Your task to perform on an android device: uninstall "Google Drive" Image 0: 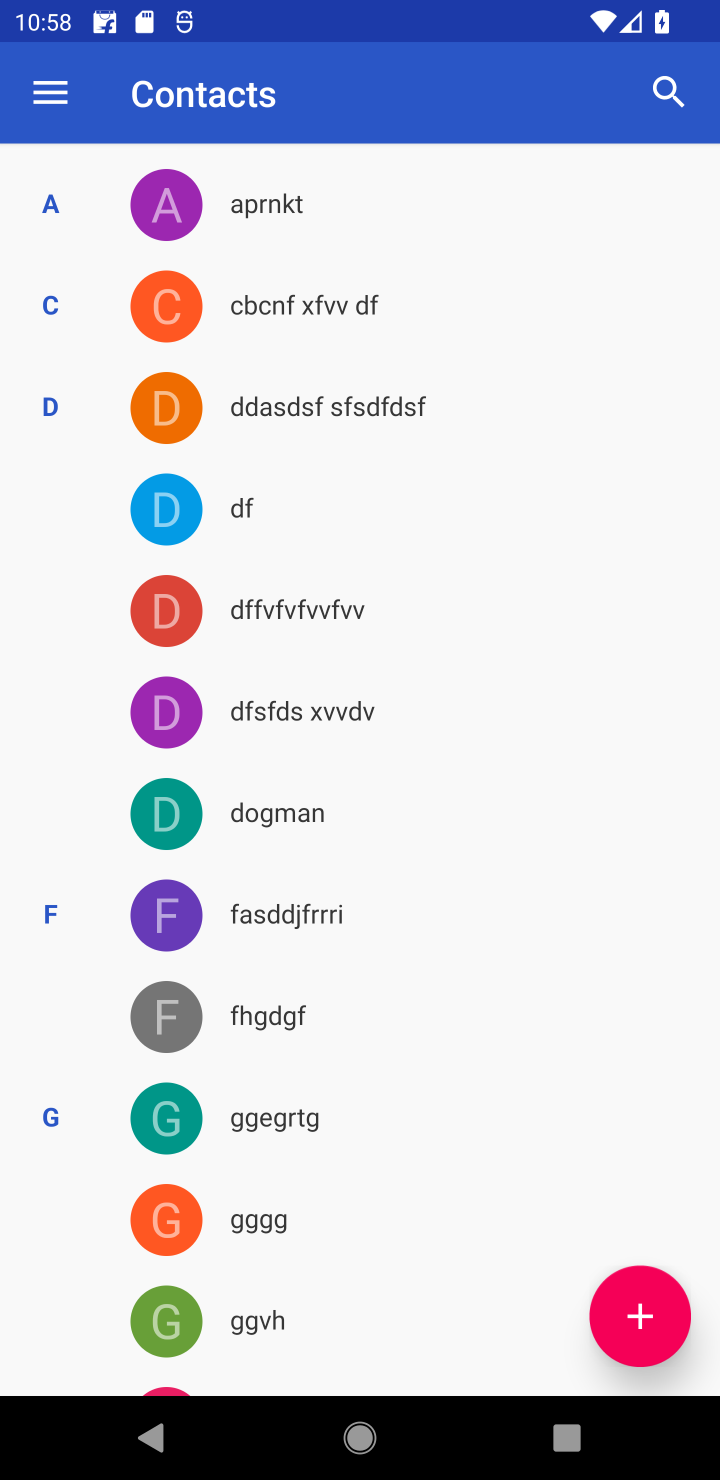
Step 0: press home button
Your task to perform on an android device: uninstall "Google Drive" Image 1: 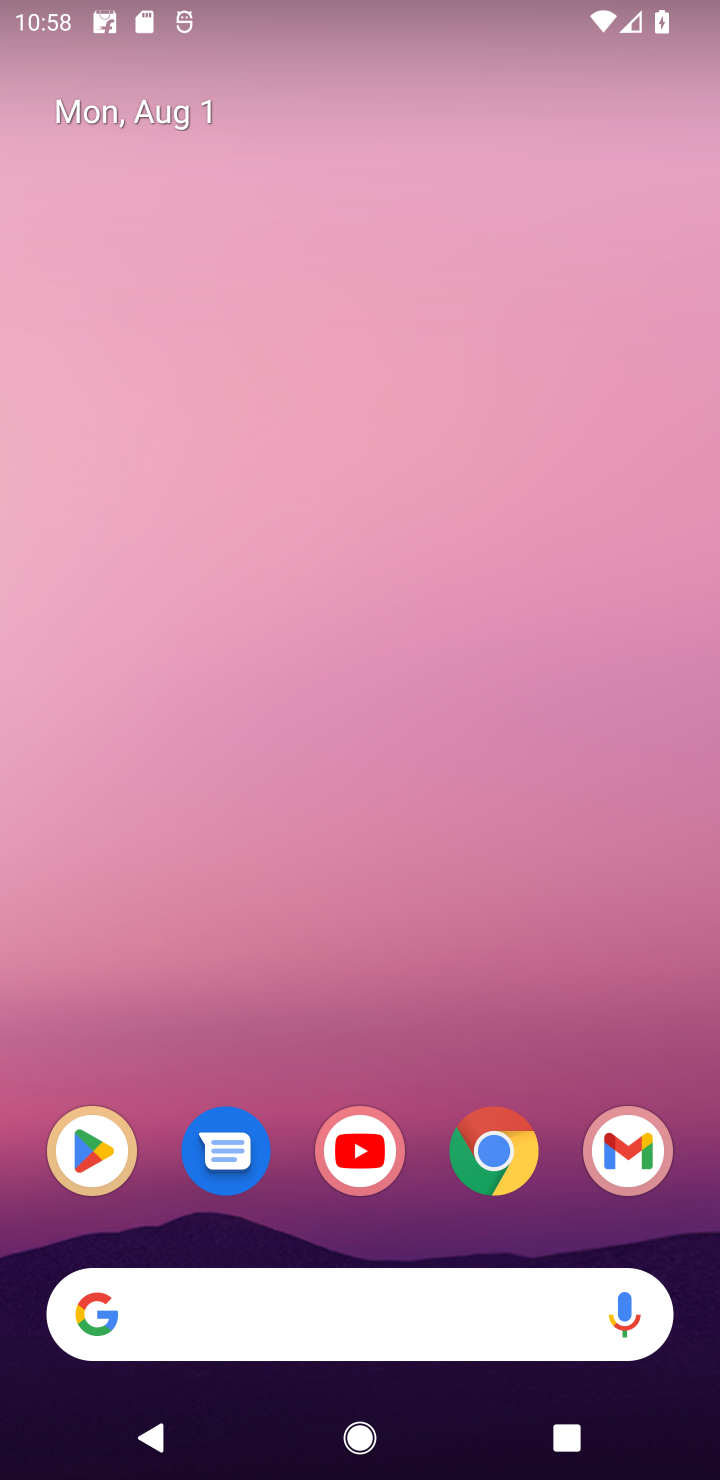
Step 1: click (117, 1133)
Your task to perform on an android device: uninstall "Google Drive" Image 2: 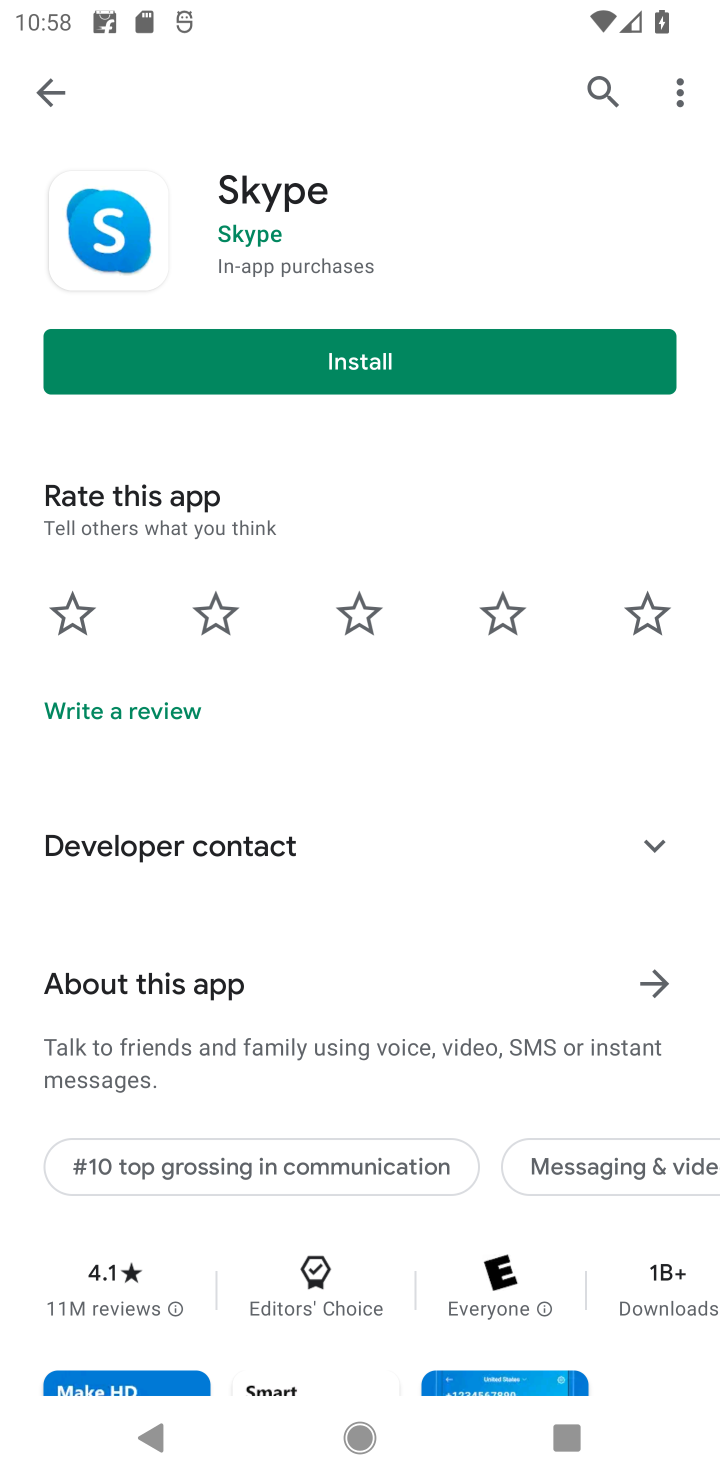
Step 2: click (603, 95)
Your task to perform on an android device: uninstall "Google Drive" Image 3: 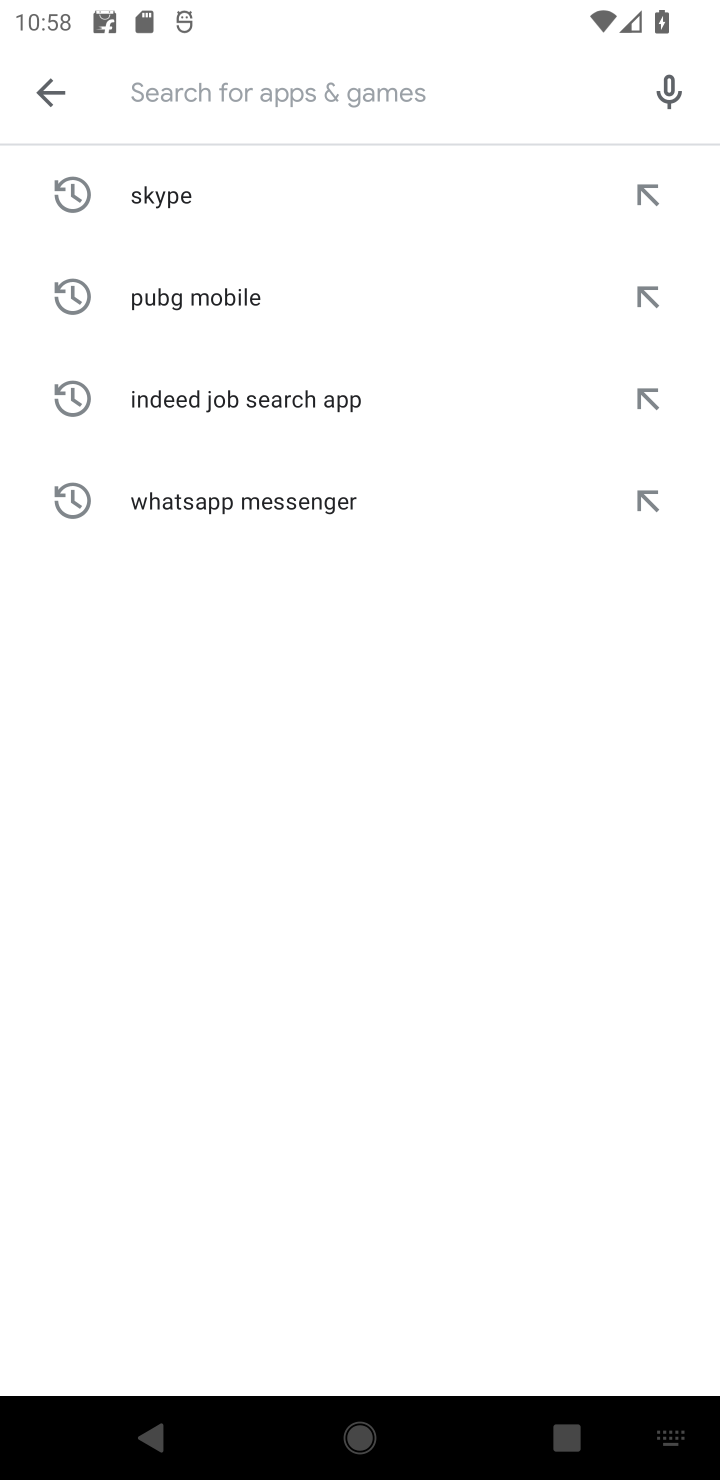
Step 3: type "Google Drive"
Your task to perform on an android device: uninstall "Google Drive" Image 4: 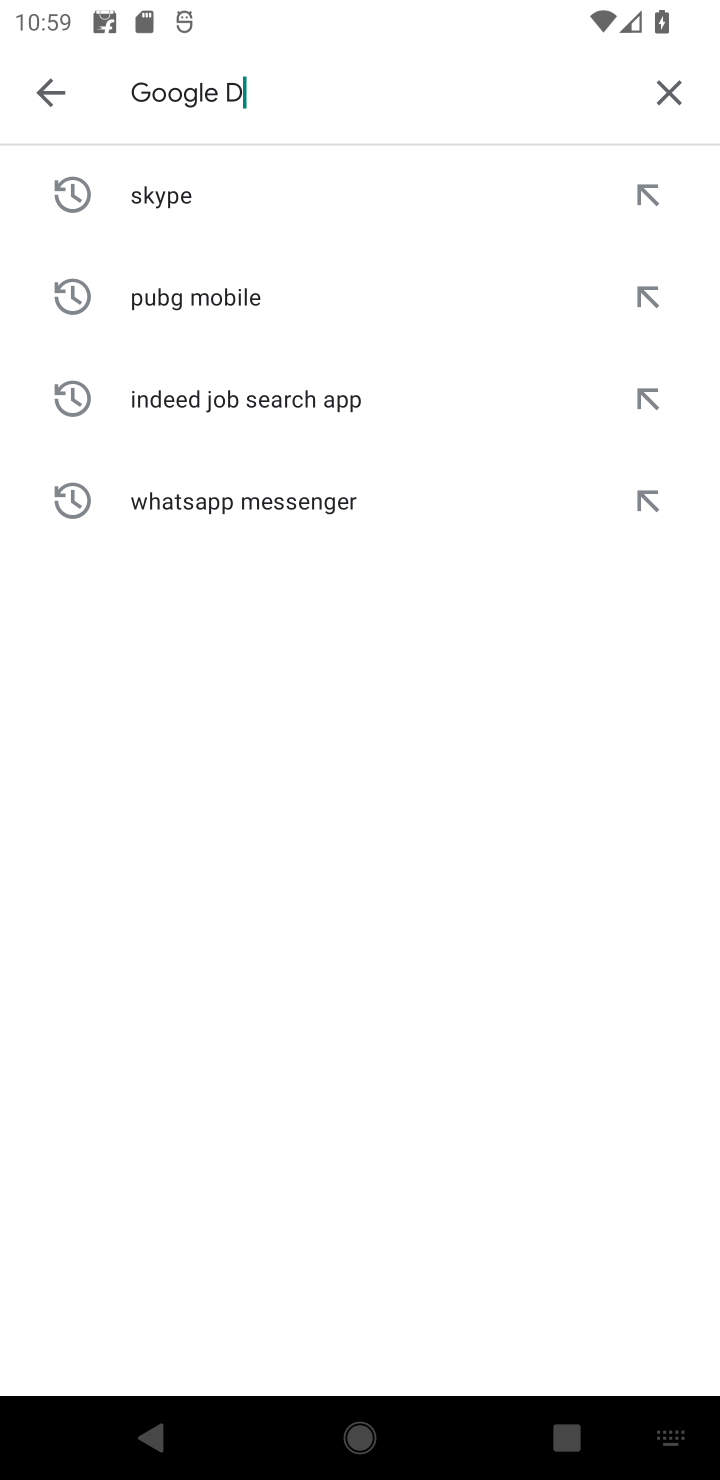
Step 4: type ""
Your task to perform on an android device: uninstall "Google Drive" Image 5: 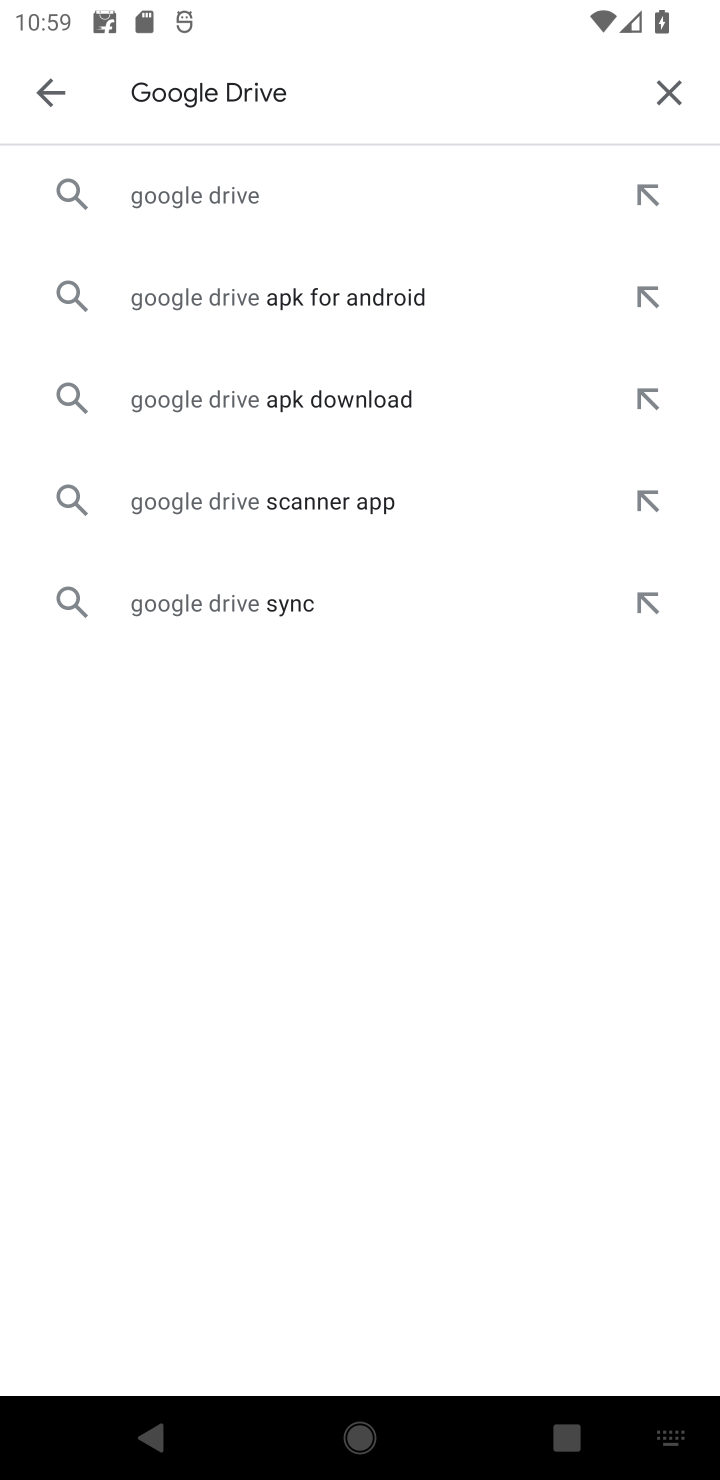
Step 5: click (317, 186)
Your task to perform on an android device: uninstall "Google Drive" Image 6: 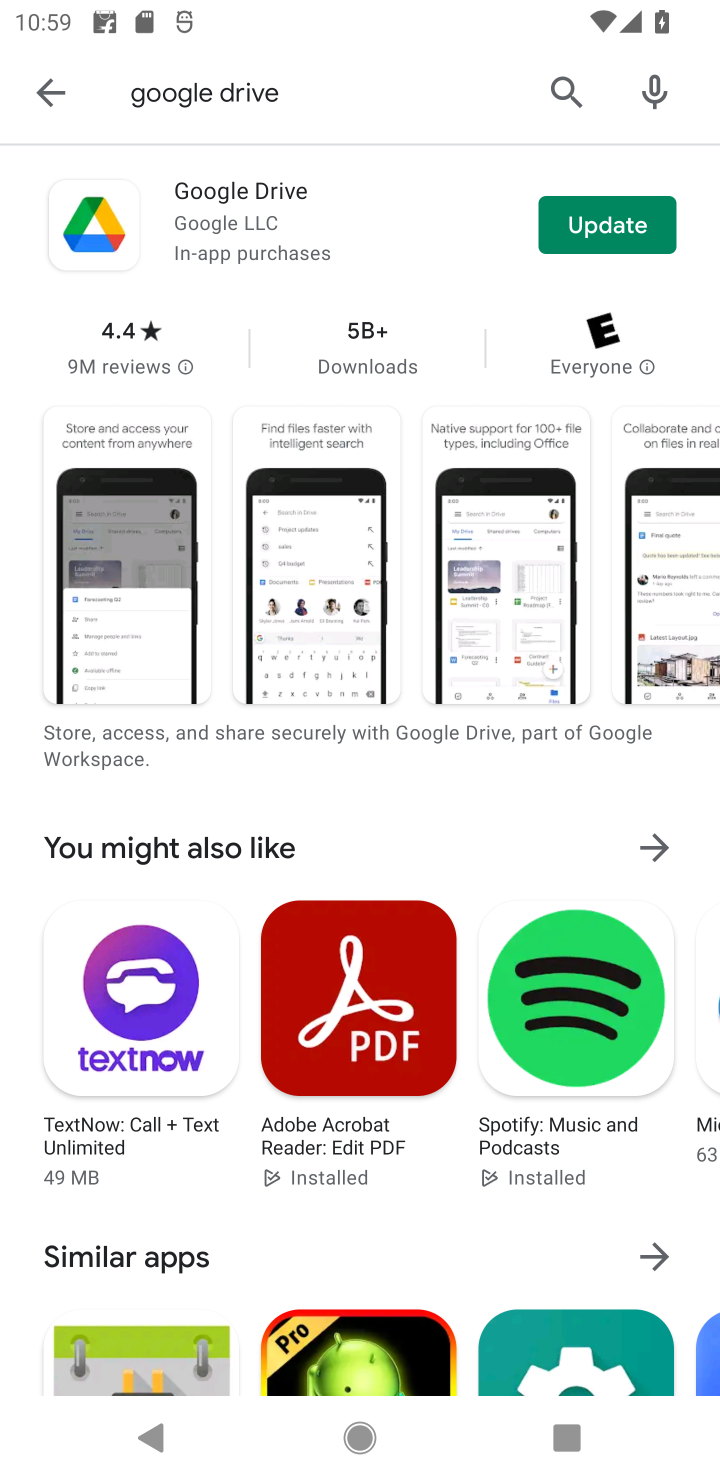
Step 6: click (333, 248)
Your task to perform on an android device: uninstall "Google Drive" Image 7: 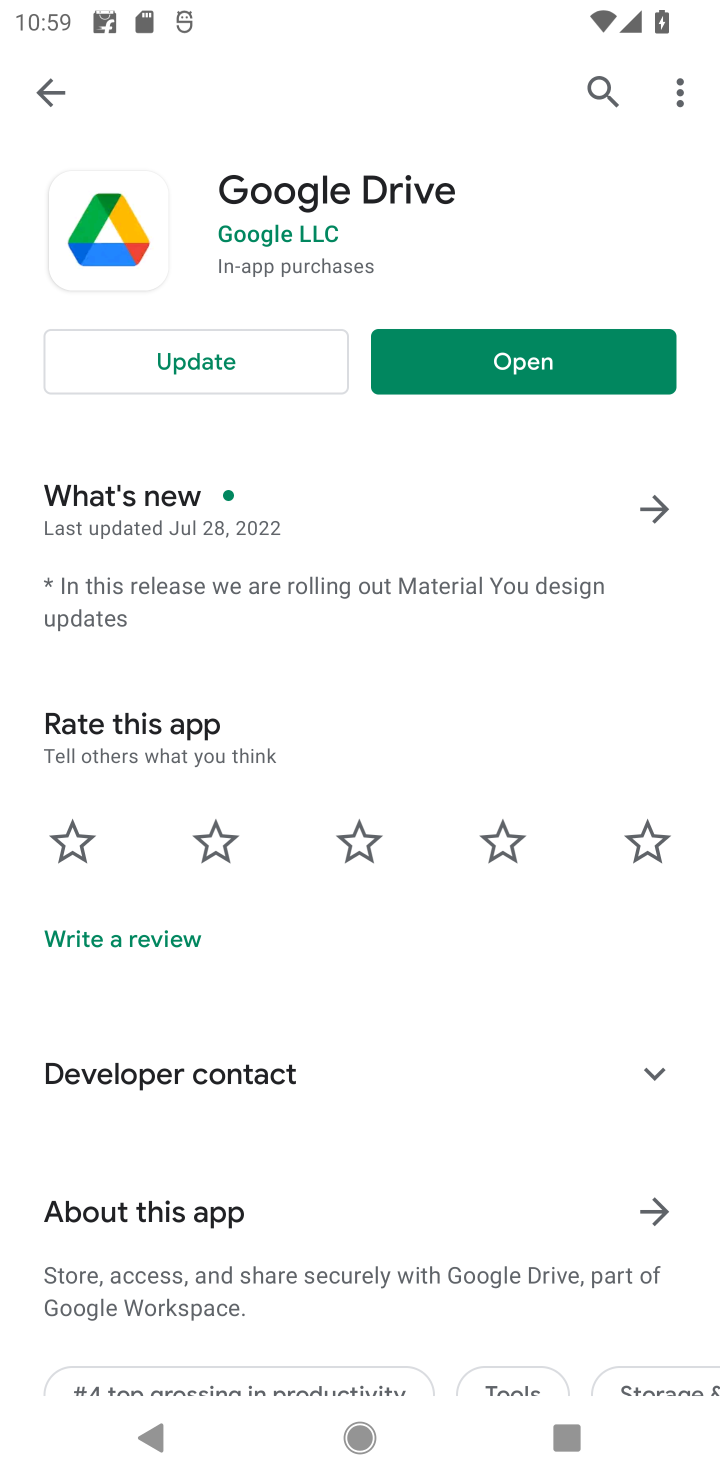
Step 7: click (221, 344)
Your task to perform on an android device: uninstall "Google Drive" Image 8: 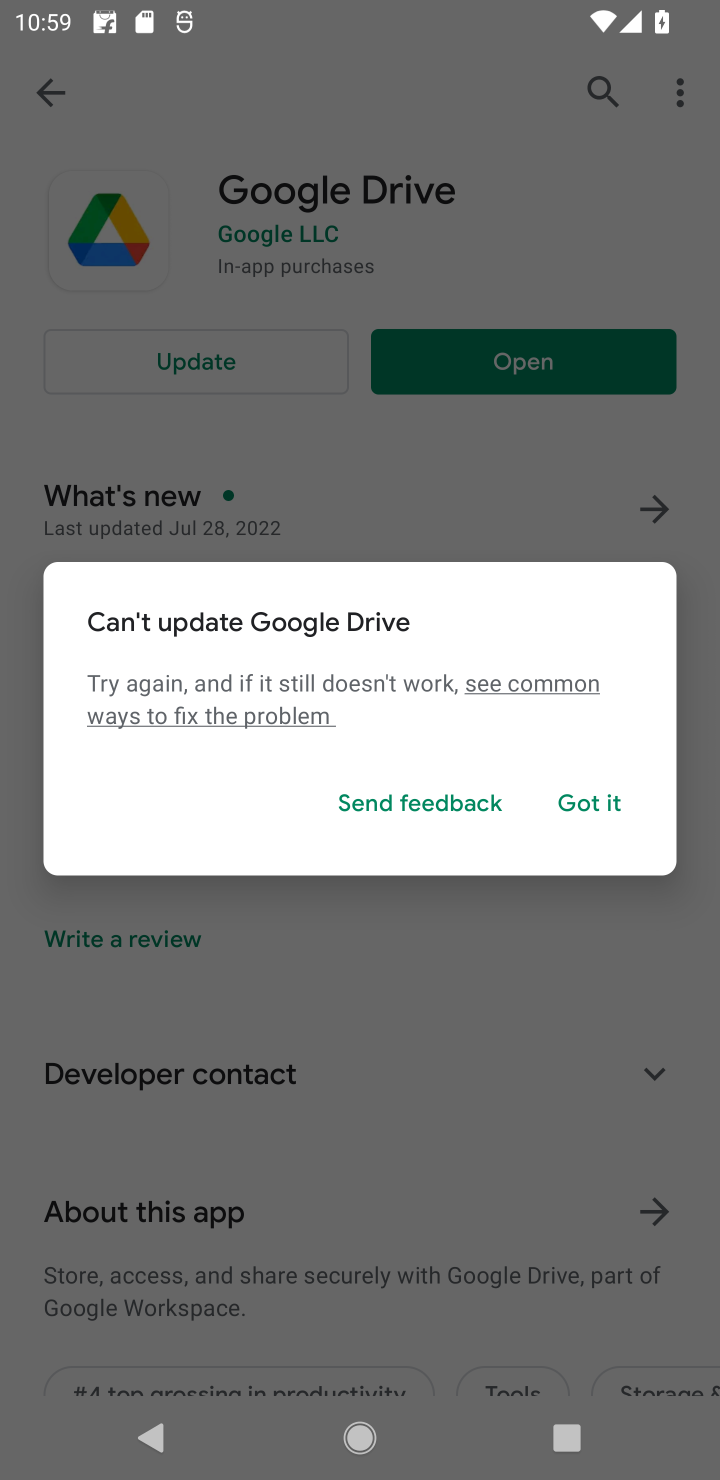
Step 8: click (571, 798)
Your task to perform on an android device: uninstall "Google Drive" Image 9: 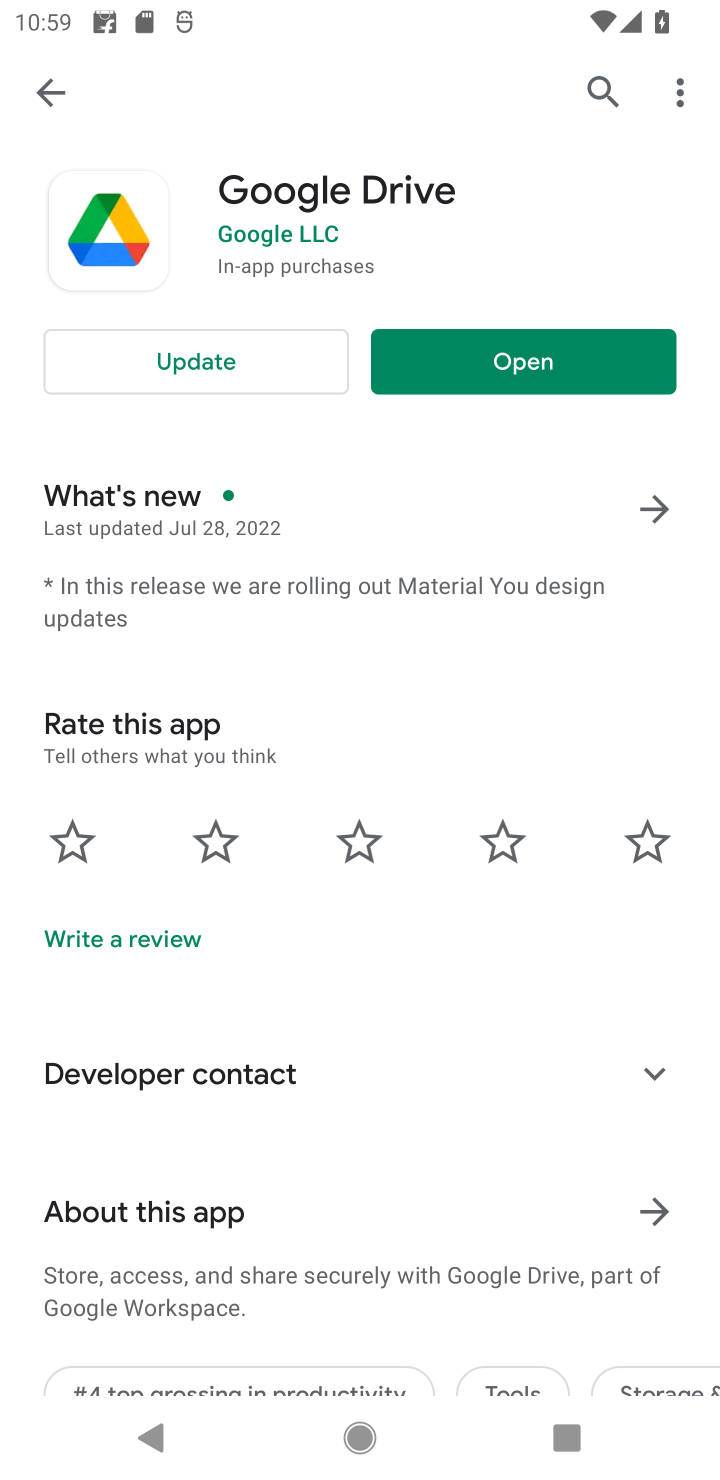
Step 9: click (245, 371)
Your task to perform on an android device: uninstall "Google Drive" Image 10: 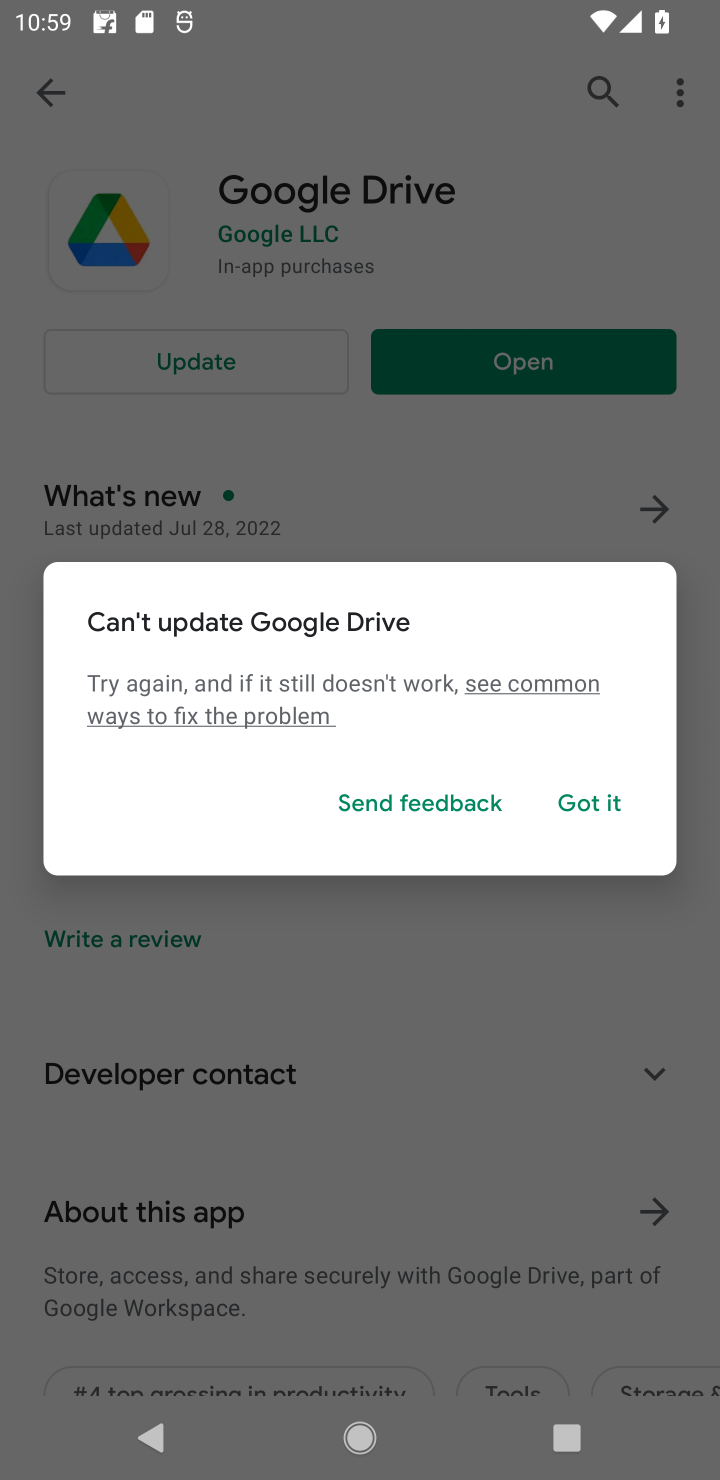
Step 10: click (563, 815)
Your task to perform on an android device: uninstall "Google Drive" Image 11: 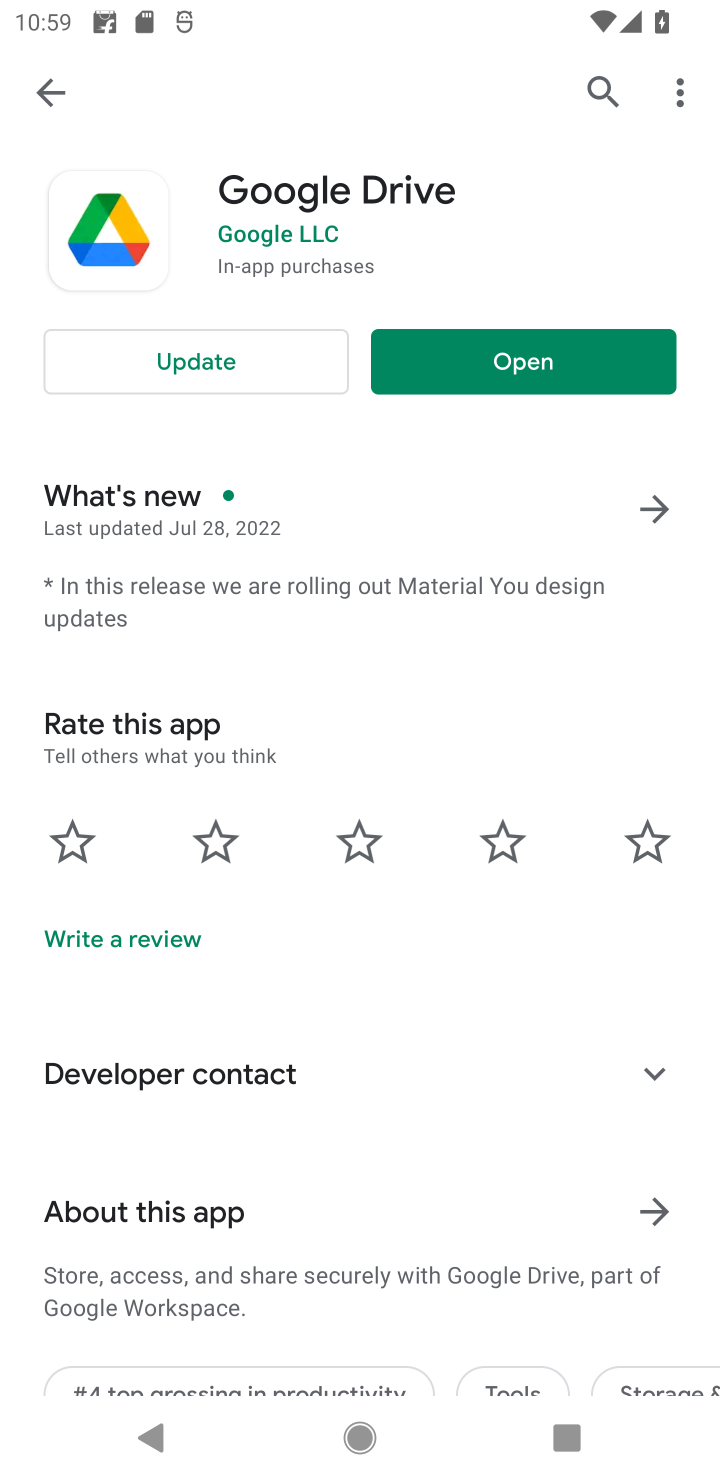
Step 11: click (256, 376)
Your task to perform on an android device: uninstall "Google Drive" Image 12: 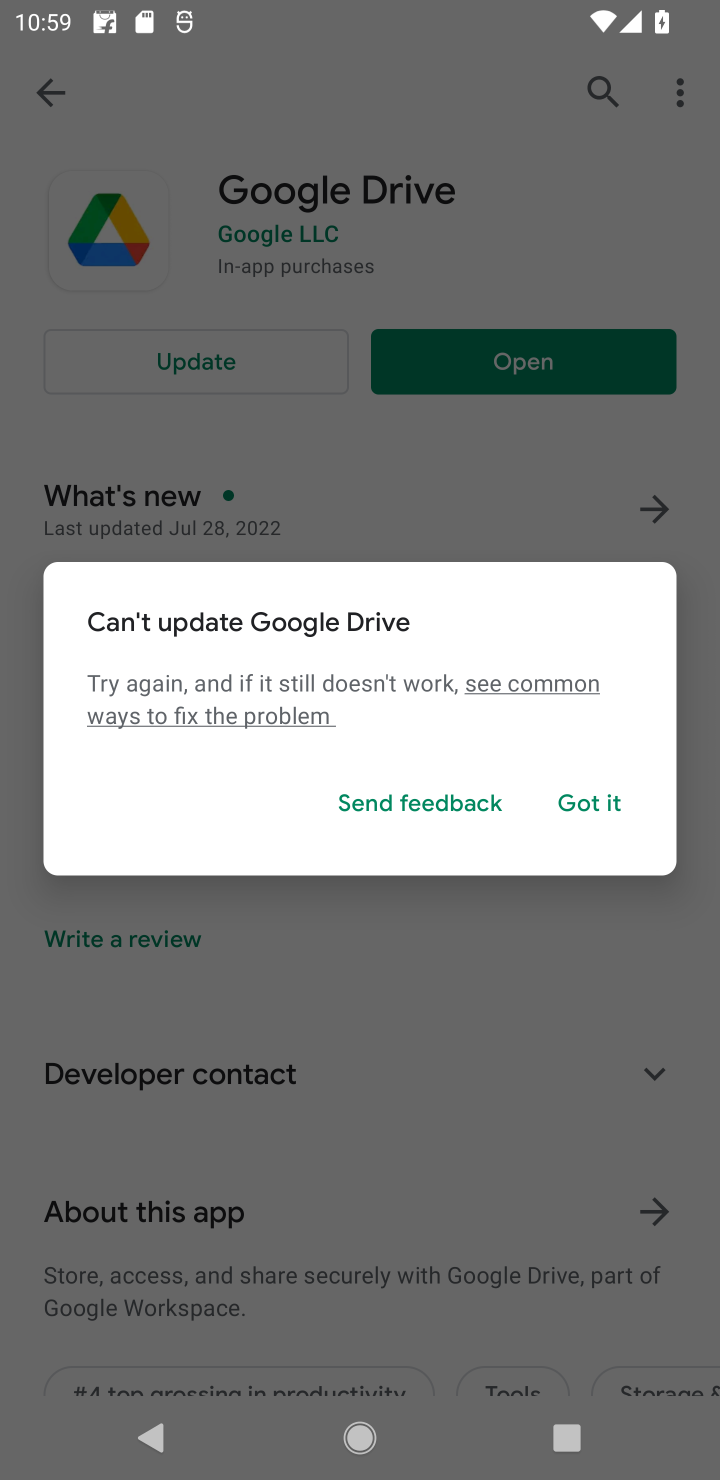
Step 12: click (586, 815)
Your task to perform on an android device: uninstall "Google Drive" Image 13: 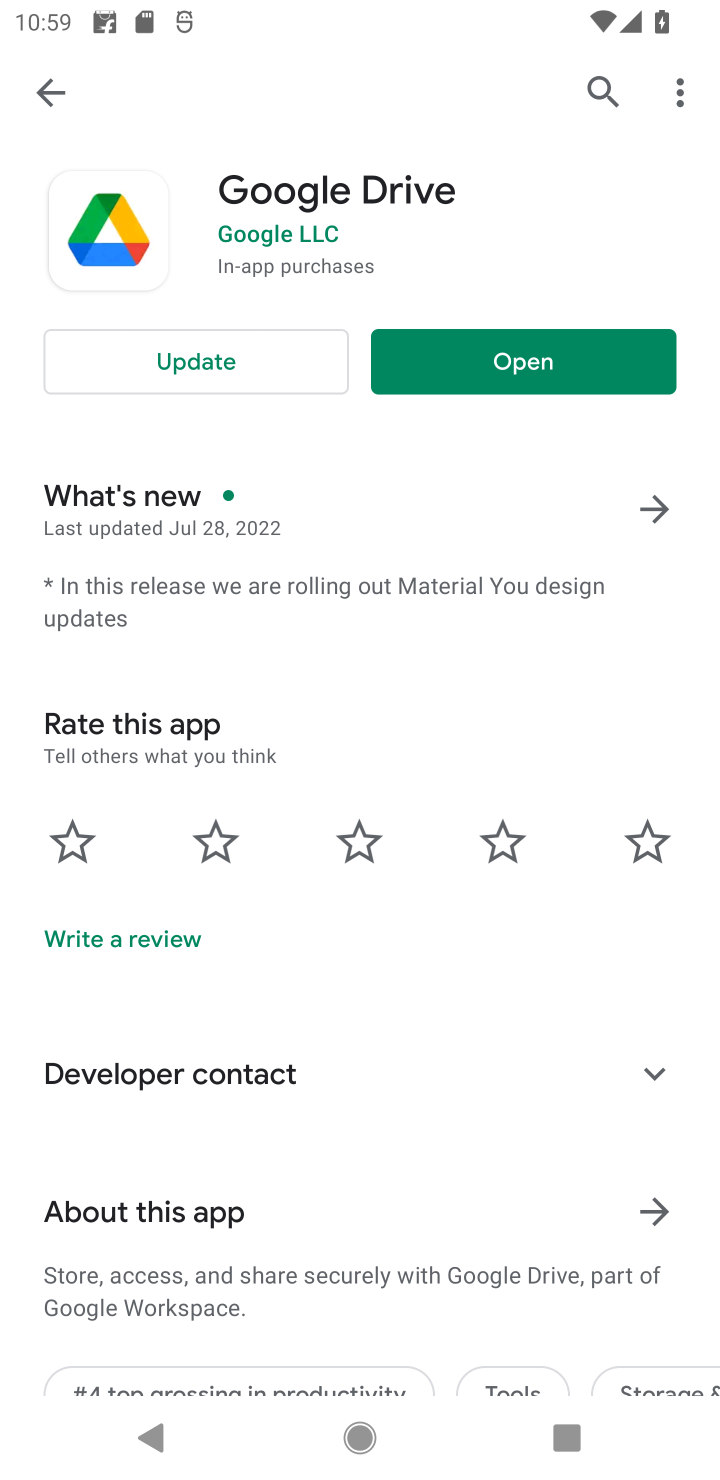
Step 13: click (247, 357)
Your task to perform on an android device: uninstall "Google Drive" Image 14: 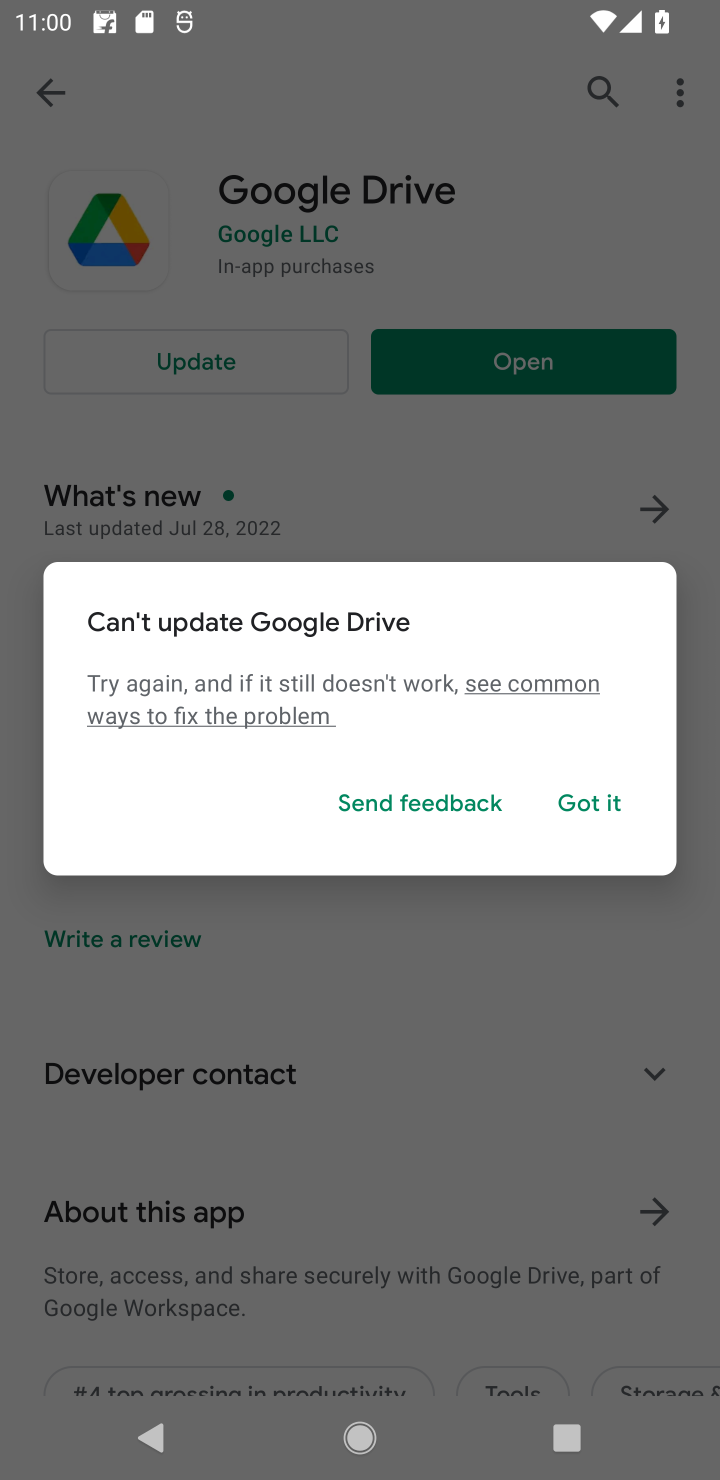
Step 14: click (565, 816)
Your task to perform on an android device: uninstall "Google Drive" Image 15: 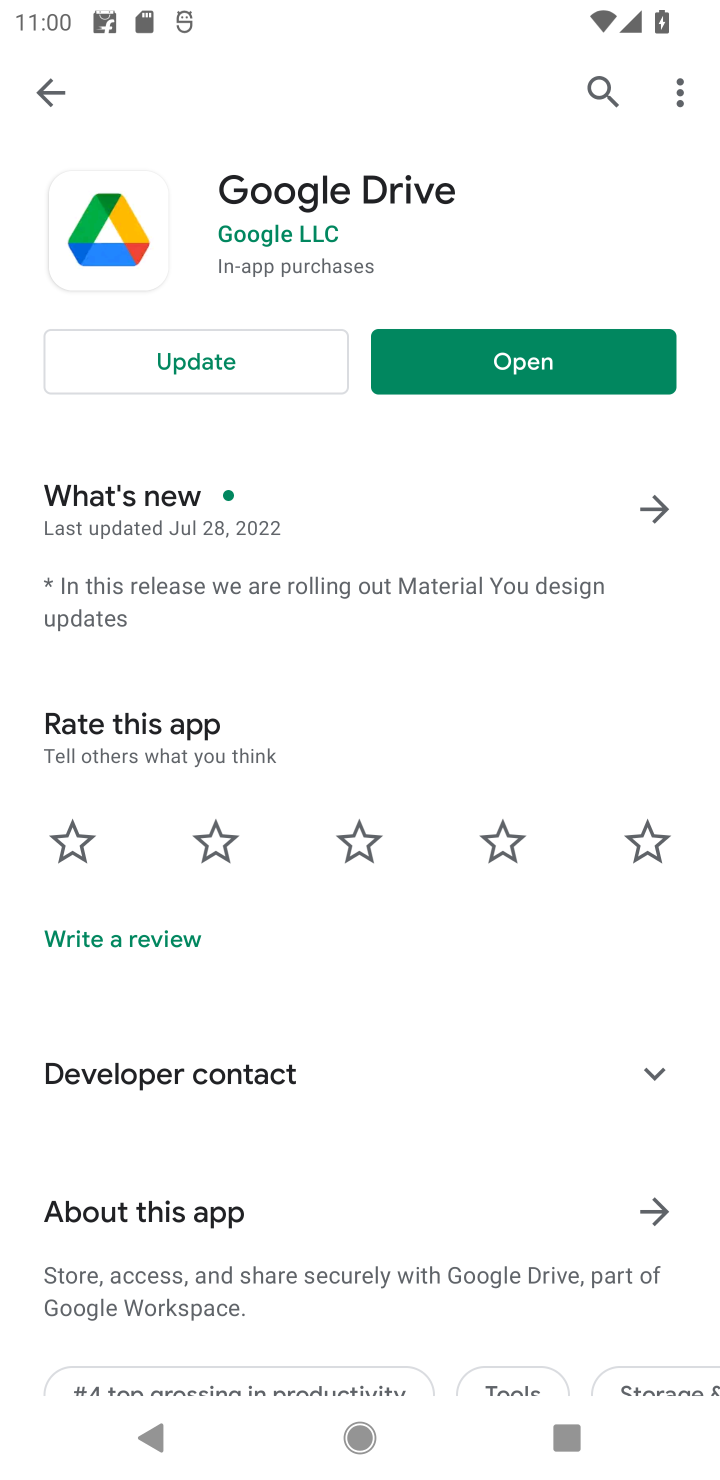
Step 15: click (300, 351)
Your task to perform on an android device: uninstall "Google Drive" Image 16: 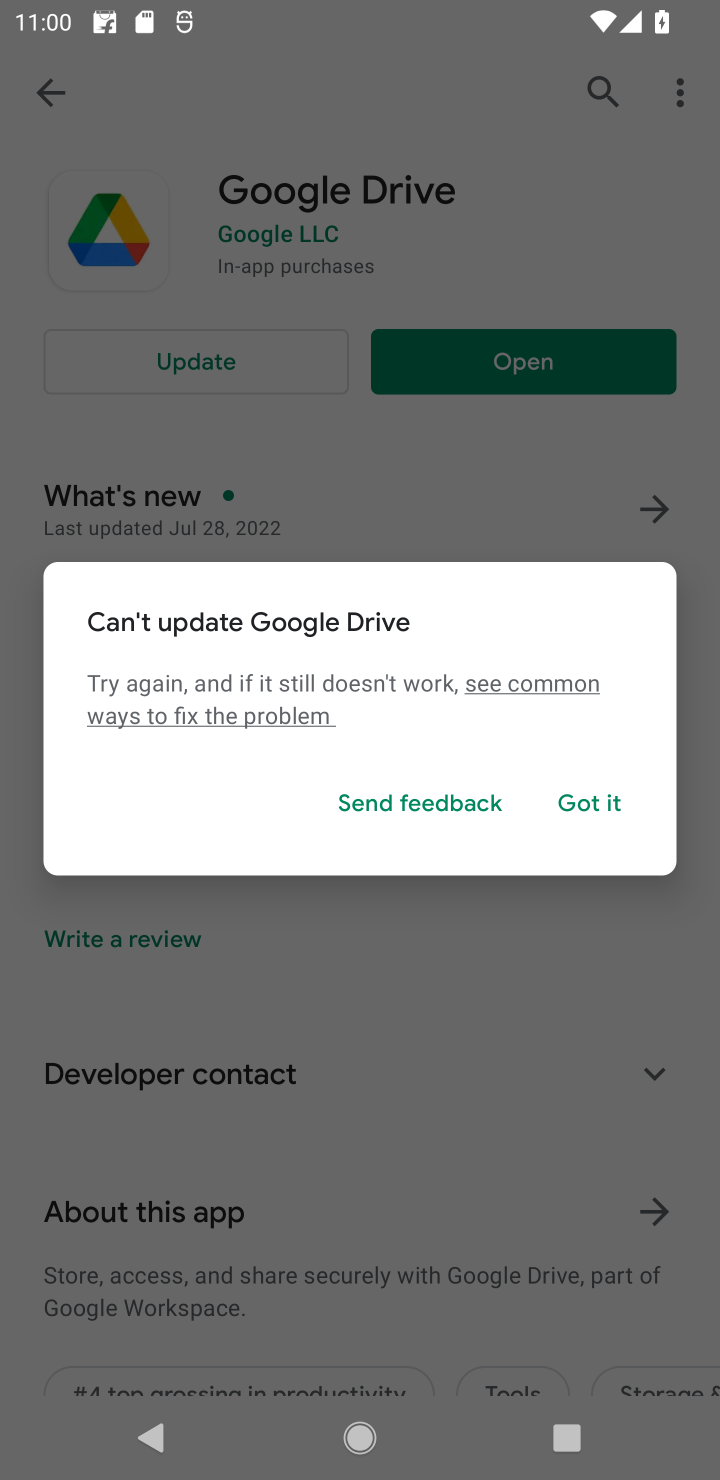
Step 16: click (580, 814)
Your task to perform on an android device: uninstall "Google Drive" Image 17: 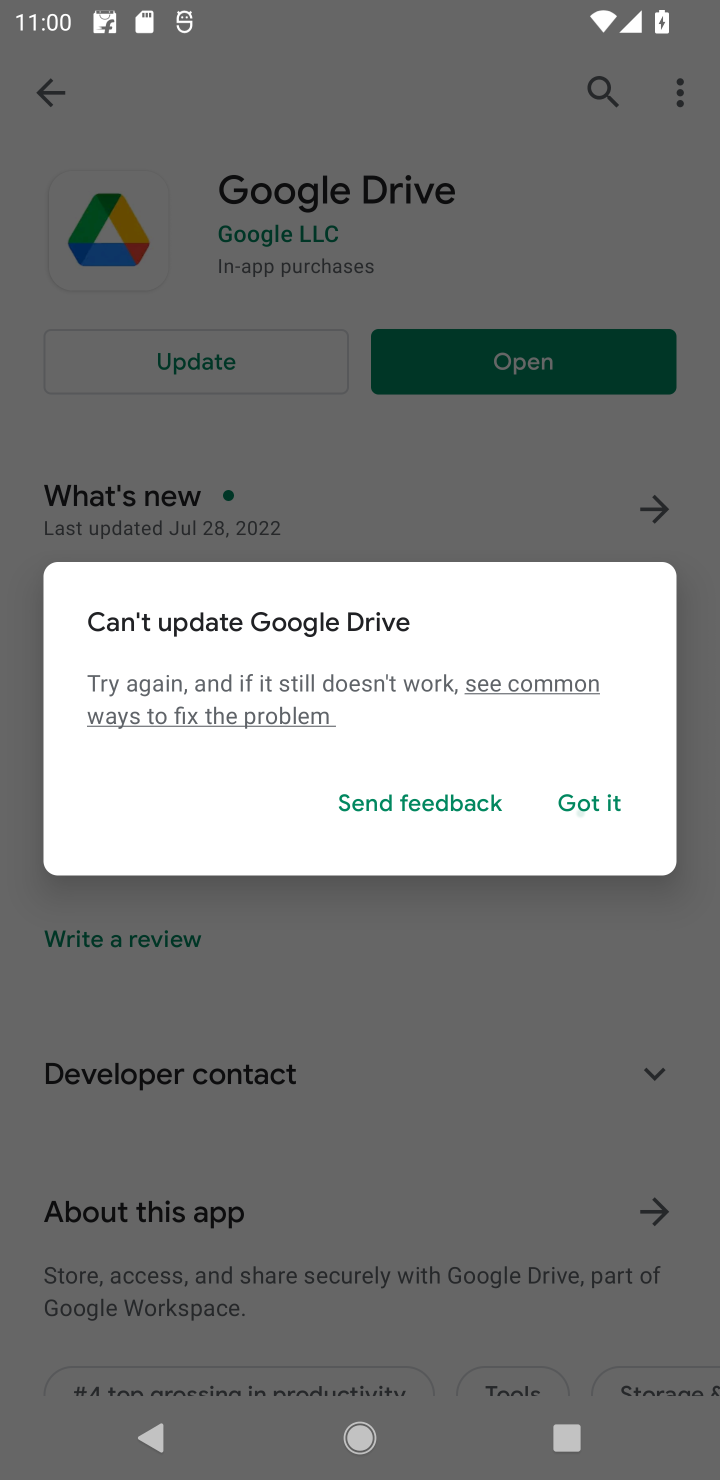
Step 17: task complete